Your task to perform on an android device: Clear the cart on bestbuy.com. Image 0: 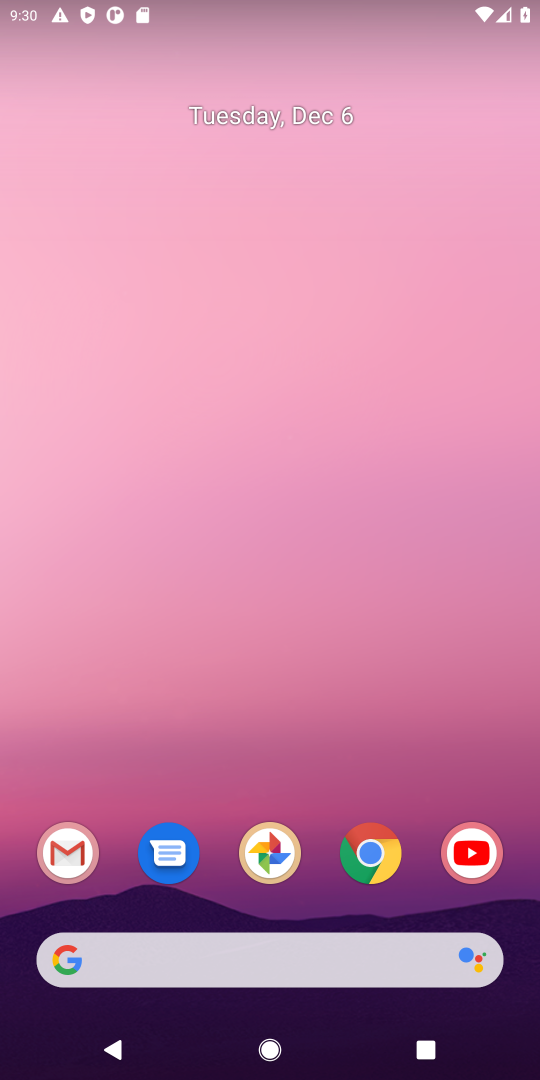
Step 0: click (365, 850)
Your task to perform on an android device: Clear the cart on bestbuy.com. Image 1: 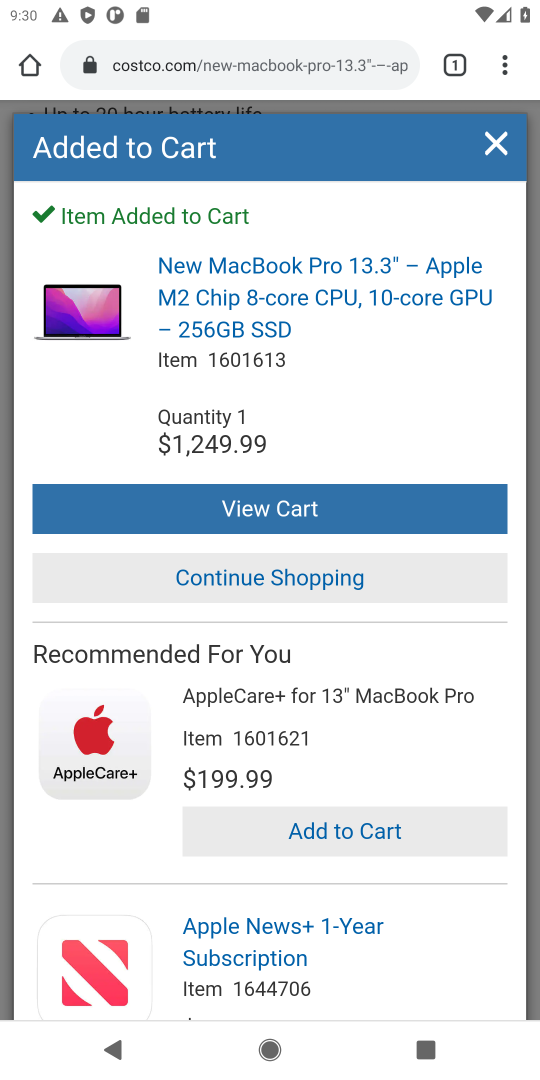
Step 1: click (312, 75)
Your task to perform on an android device: Clear the cart on bestbuy.com. Image 2: 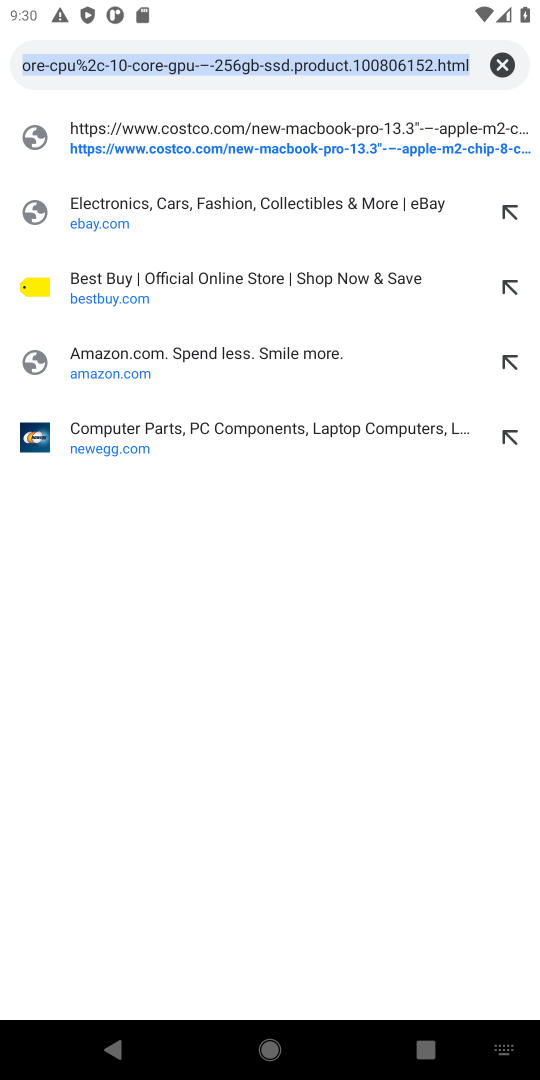
Step 2: click (307, 278)
Your task to perform on an android device: Clear the cart on bestbuy.com. Image 3: 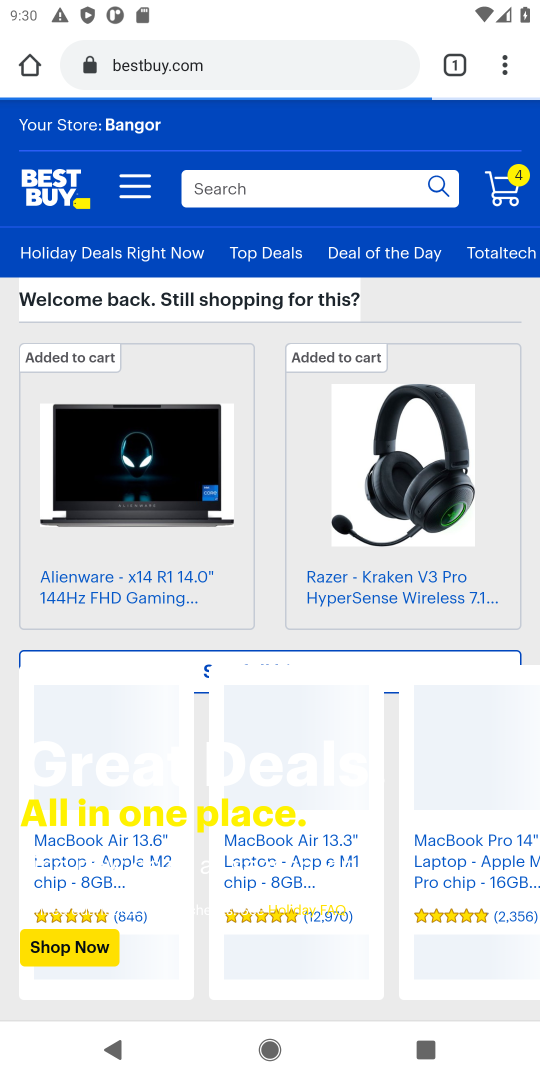
Step 3: click (514, 182)
Your task to perform on an android device: Clear the cart on bestbuy.com. Image 4: 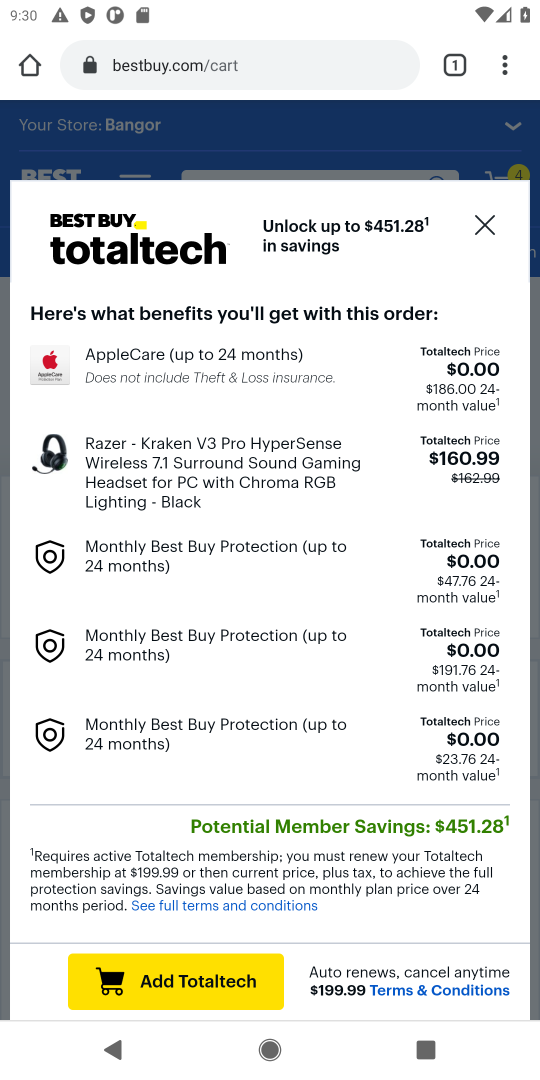
Step 4: click (483, 218)
Your task to perform on an android device: Clear the cart on bestbuy.com. Image 5: 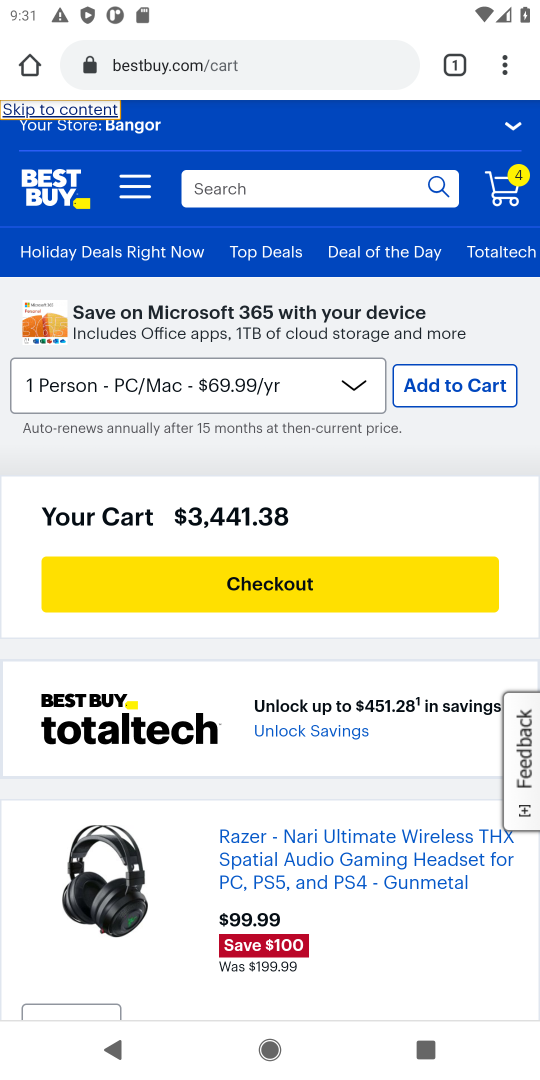
Step 5: drag from (394, 938) to (399, 276)
Your task to perform on an android device: Clear the cart on bestbuy.com. Image 6: 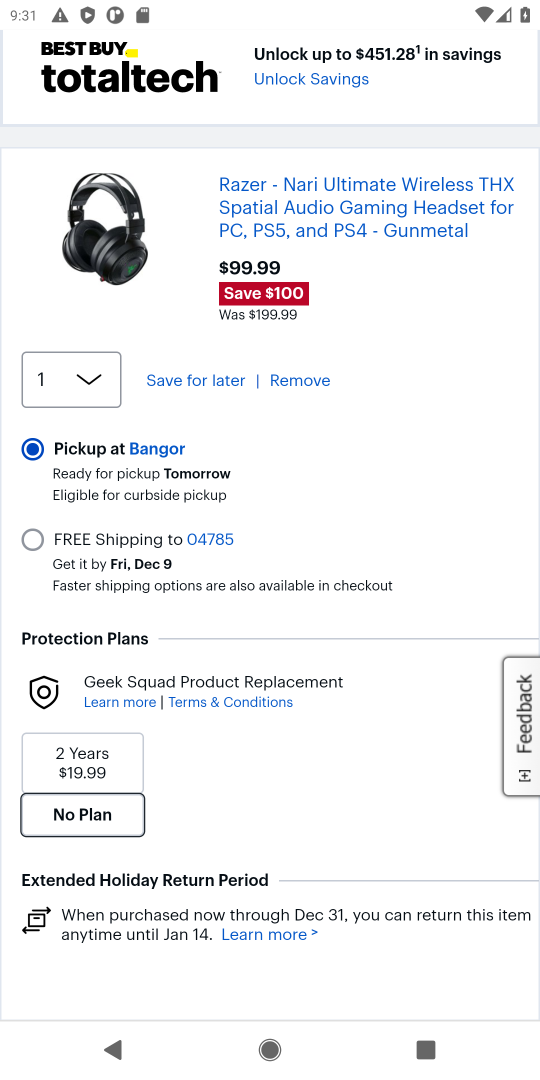
Step 6: click (313, 385)
Your task to perform on an android device: Clear the cart on bestbuy.com. Image 7: 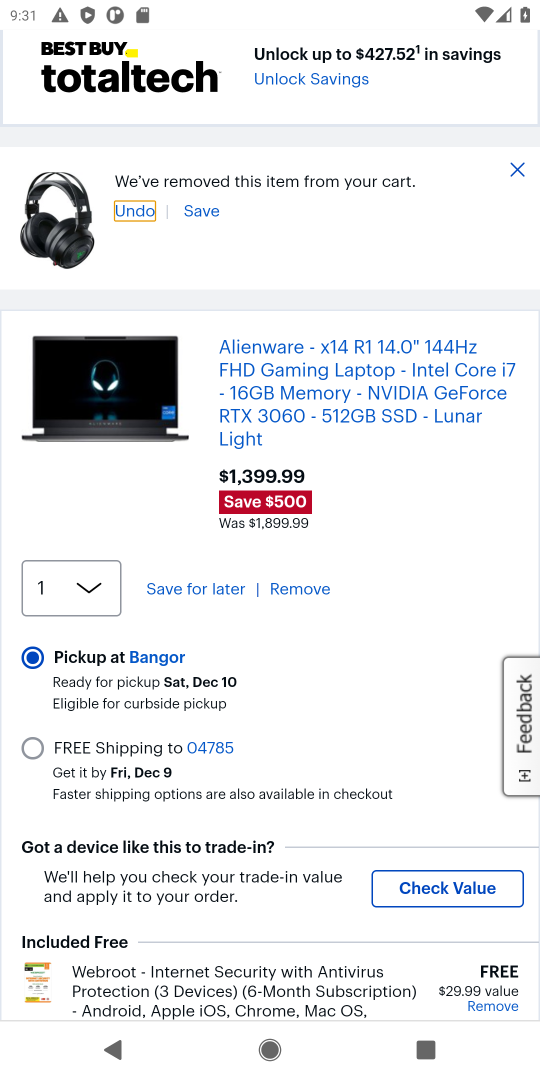
Step 7: click (306, 593)
Your task to perform on an android device: Clear the cart on bestbuy.com. Image 8: 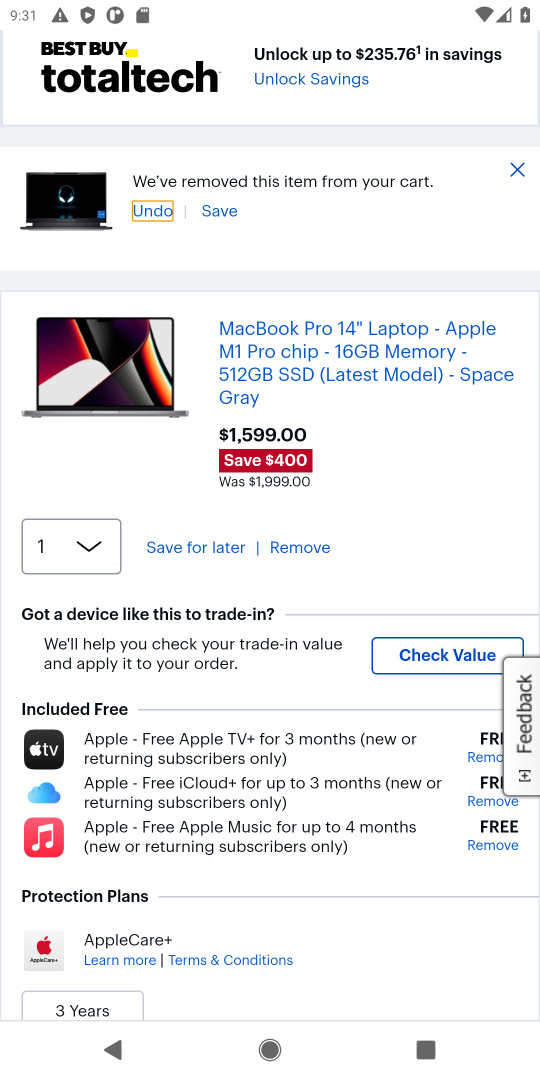
Step 8: click (297, 543)
Your task to perform on an android device: Clear the cart on bestbuy.com. Image 9: 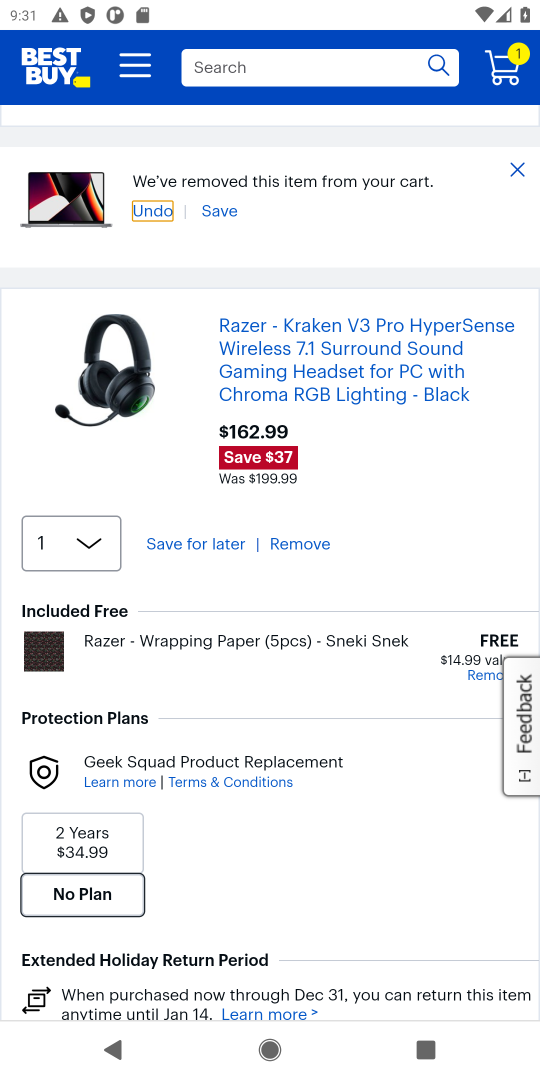
Step 9: click (303, 540)
Your task to perform on an android device: Clear the cart on bestbuy.com. Image 10: 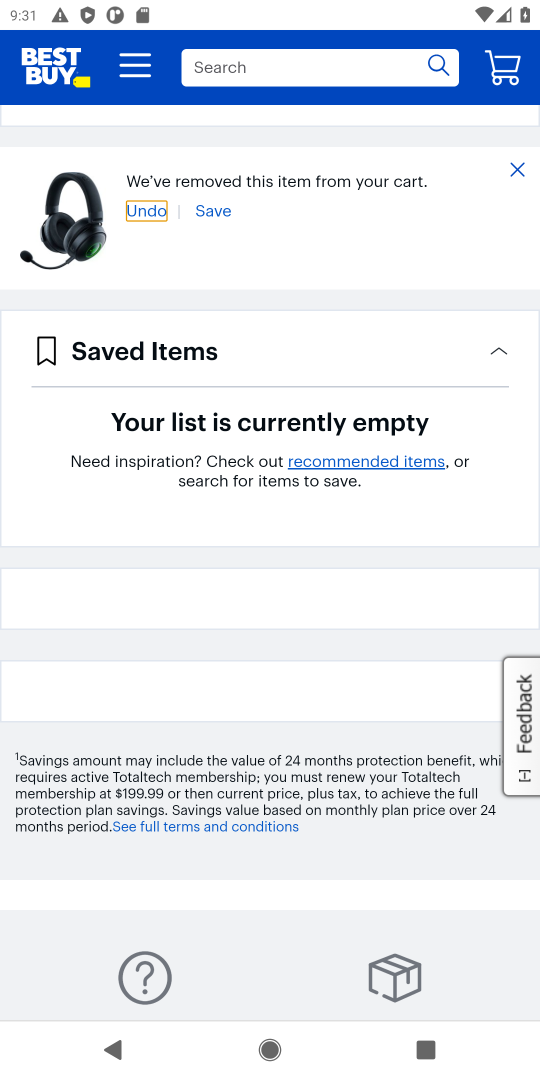
Step 10: task complete